Your task to perform on an android device: open app "Lyft - Rideshare, Bikes, Scooters & Transit" (install if not already installed) and enter user name: "deliberating@gmail.com" and password: "preyed" Image 0: 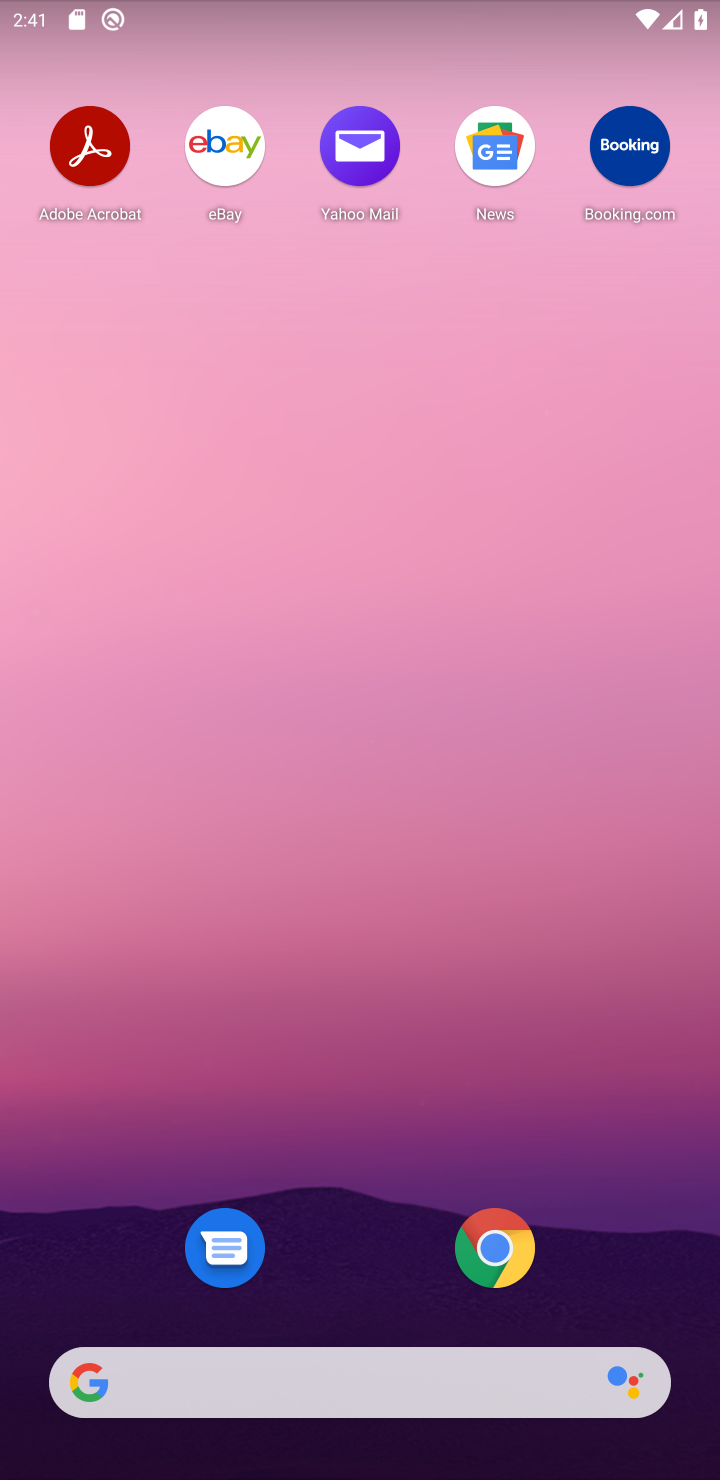
Step 0: drag from (354, 825) to (308, 41)
Your task to perform on an android device: open app "Lyft - Rideshare, Bikes, Scooters & Transit" (install if not already installed) and enter user name: "deliberating@gmail.com" and password: "preyed" Image 1: 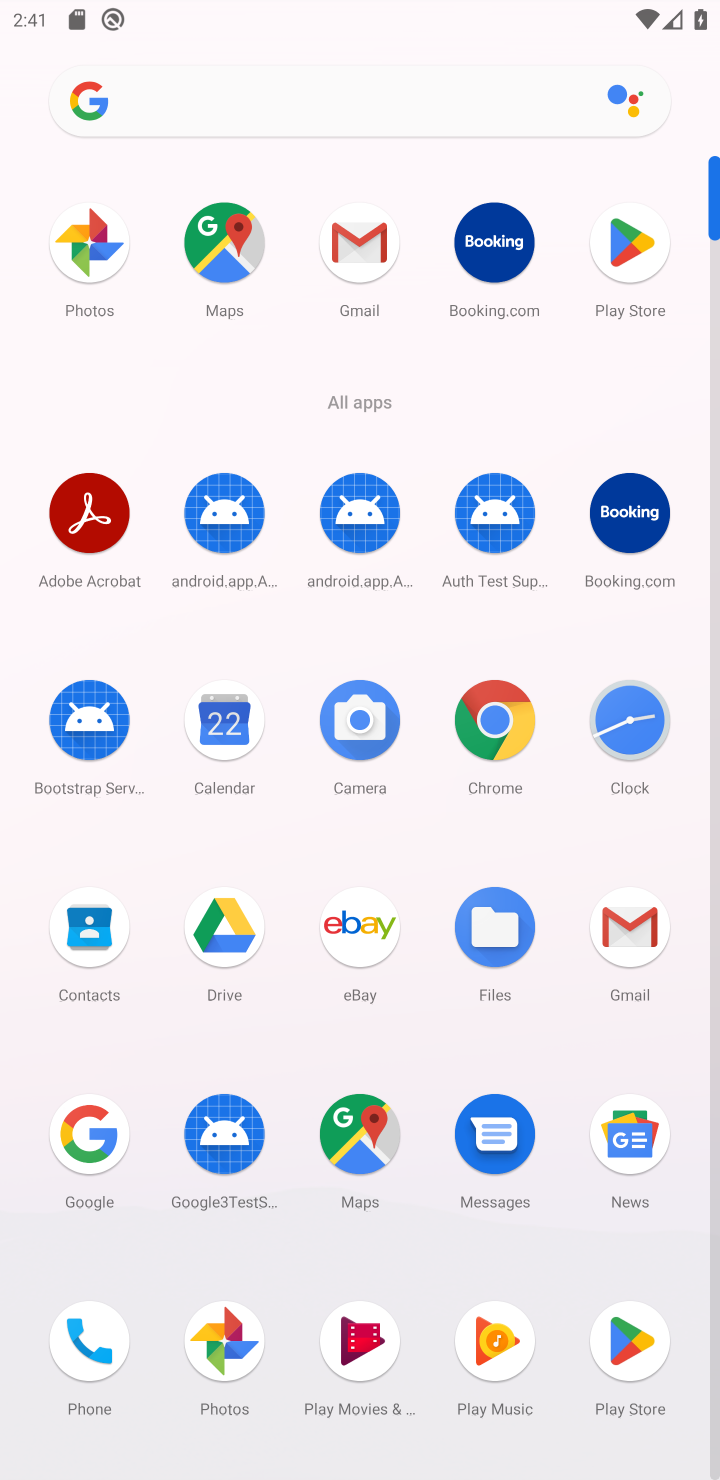
Step 1: click (648, 256)
Your task to perform on an android device: open app "Lyft - Rideshare, Bikes, Scooters & Transit" (install if not already installed) and enter user name: "deliberating@gmail.com" and password: "preyed" Image 2: 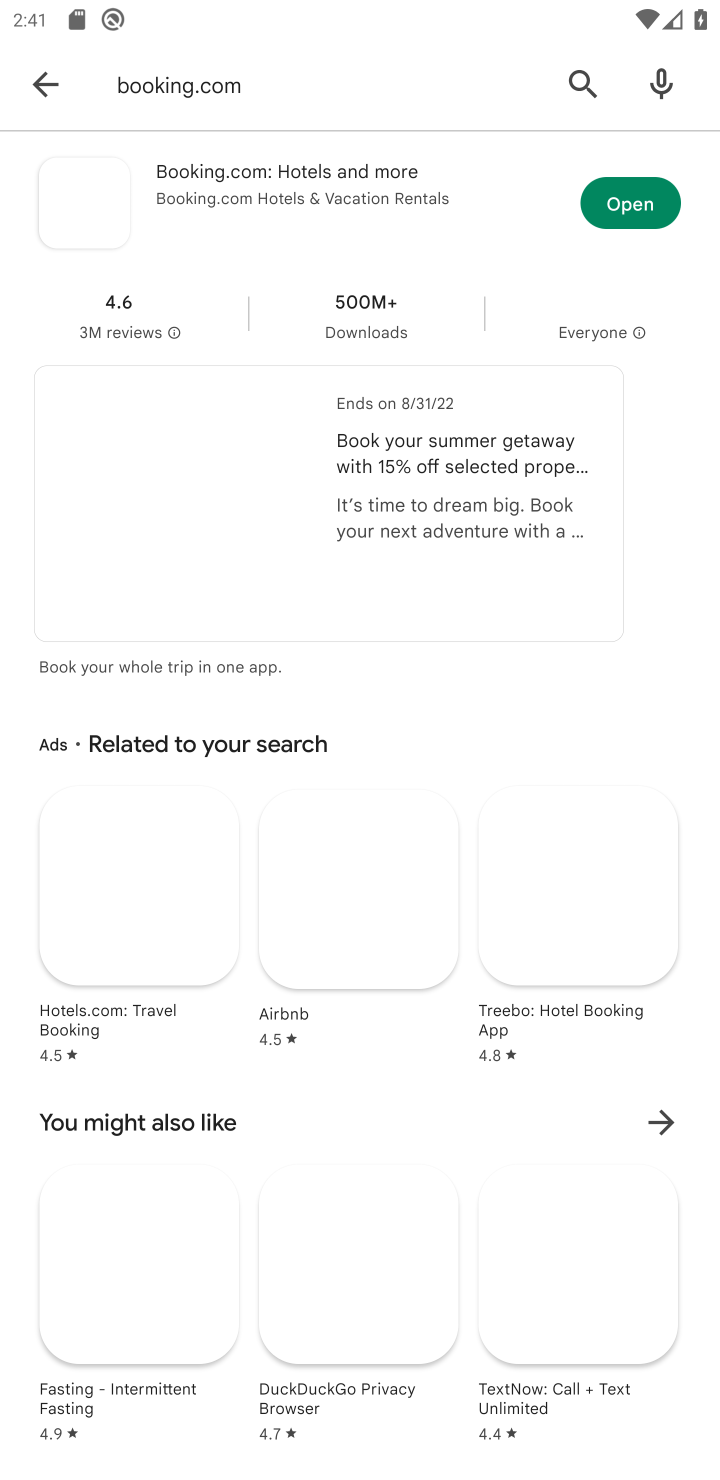
Step 2: click (266, 72)
Your task to perform on an android device: open app "Lyft - Rideshare, Bikes, Scooters & Transit" (install if not already installed) and enter user name: "deliberating@gmail.com" and password: "preyed" Image 3: 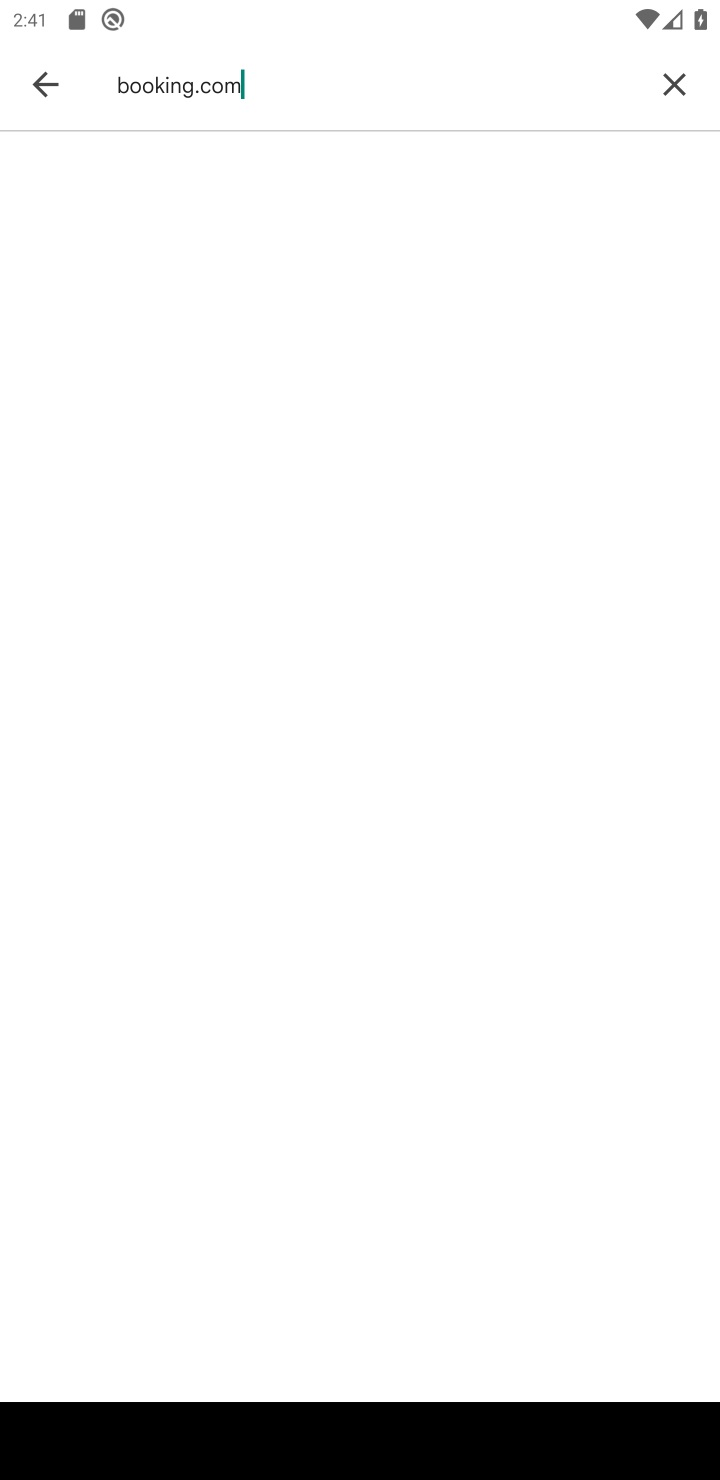
Step 3: click (679, 91)
Your task to perform on an android device: open app "Lyft - Rideshare, Bikes, Scooters & Transit" (install if not already installed) and enter user name: "deliberating@gmail.com" and password: "preyed" Image 4: 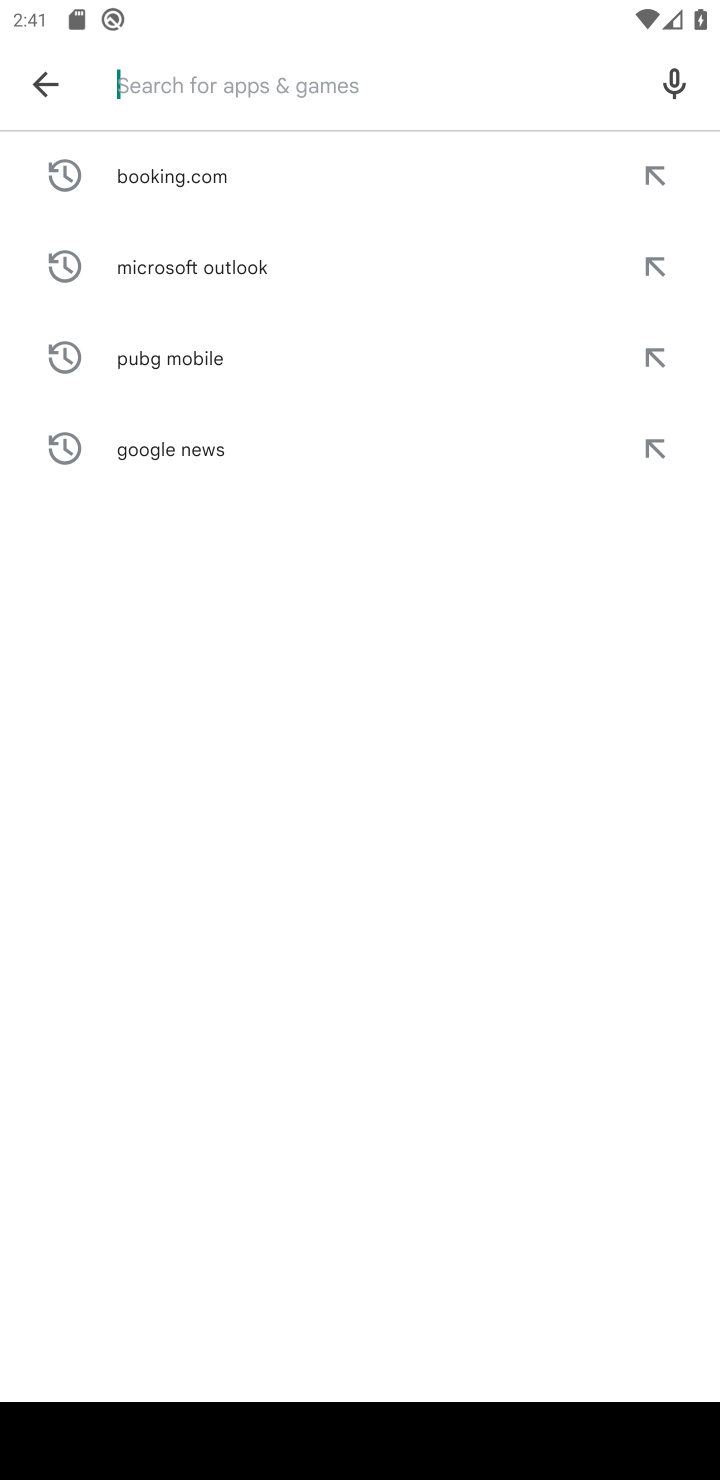
Step 4: type "lyft"
Your task to perform on an android device: open app "Lyft - Rideshare, Bikes, Scooters & Transit" (install if not already installed) and enter user name: "deliberating@gmail.com" and password: "preyed" Image 5: 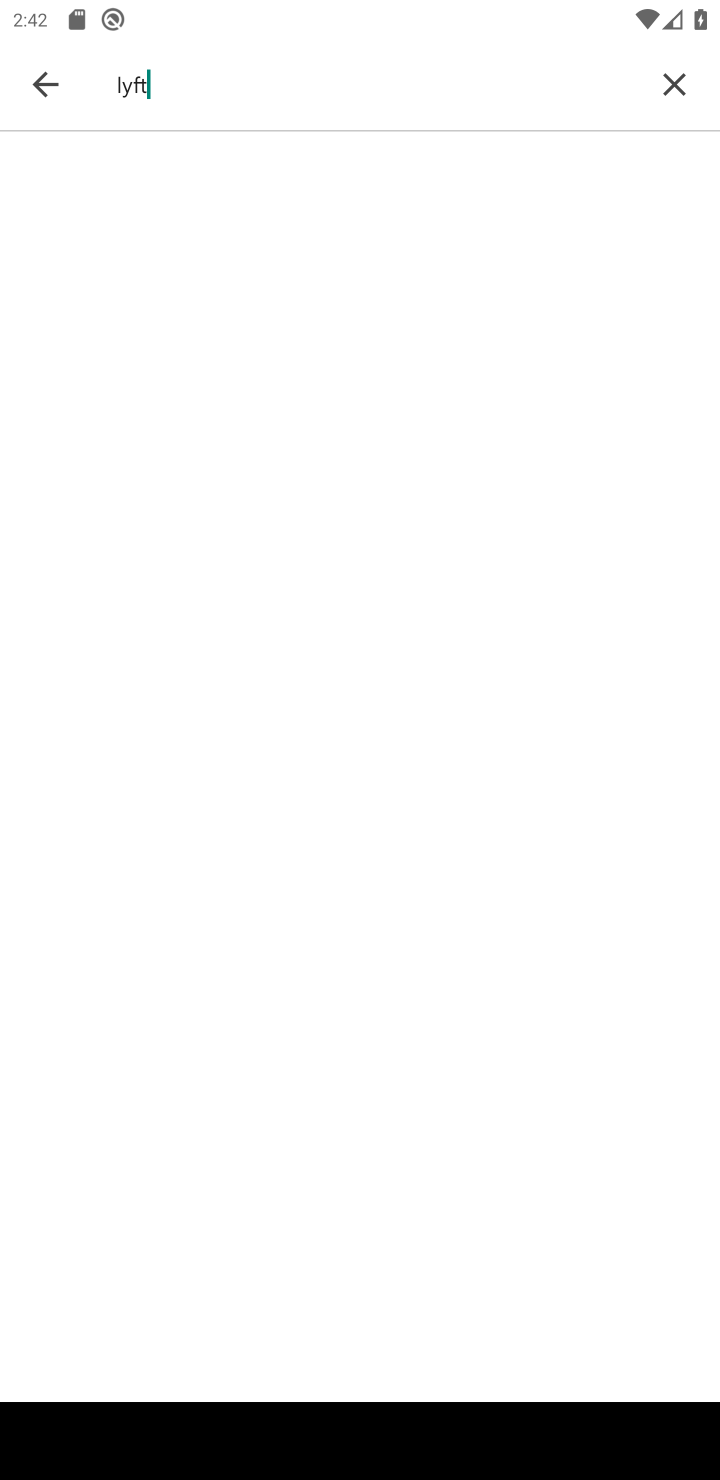
Step 5: click (398, 229)
Your task to perform on an android device: open app "Lyft - Rideshare, Bikes, Scooters & Transit" (install if not already installed) and enter user name: "deliberating@gmail.com" and password: "preyed" Image 6: 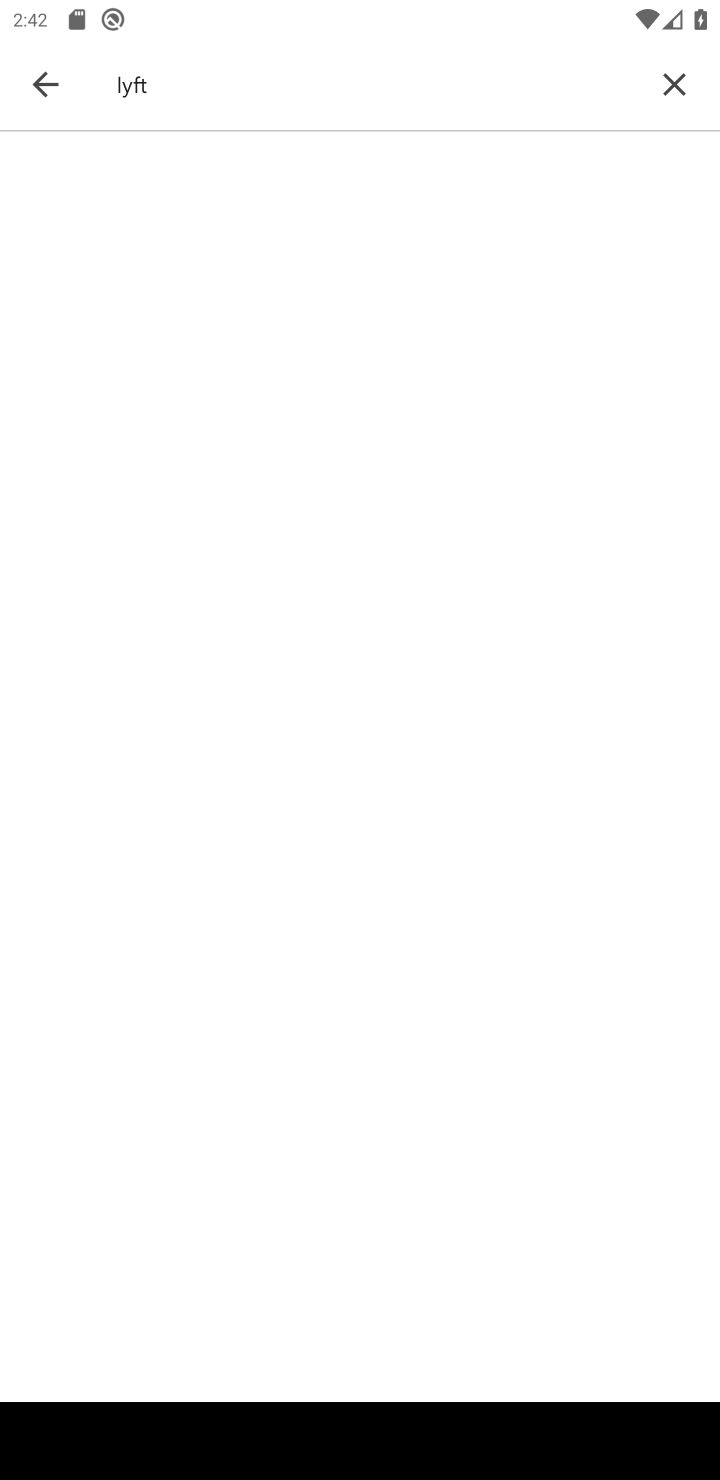
Step 6: click (248, 124)
Your task to perform on an android device: open app "Lyft - Rideshare, Bikes, Scooters & Transit" (install if not already installed) and enter user name: "deliberating@gmail.com" and password: "preyed" Image 7: 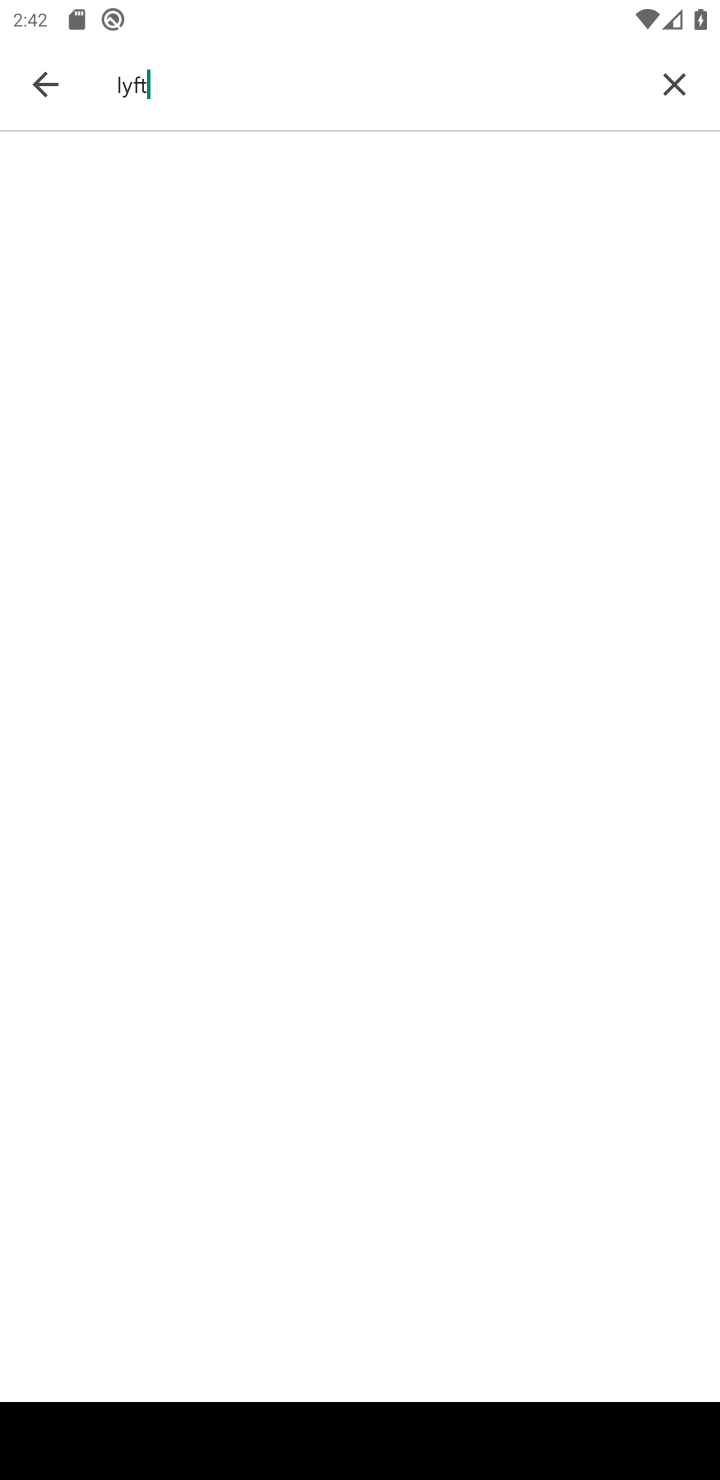
Step 7: click (685, 63)
Your task to perform on an android device: open app "Lyft - Rideshare, Bikes, Scooters & Transit" (install if not already installed) and enter user name: "deliberating@gmail.com" and password: "preyed" Image 8: 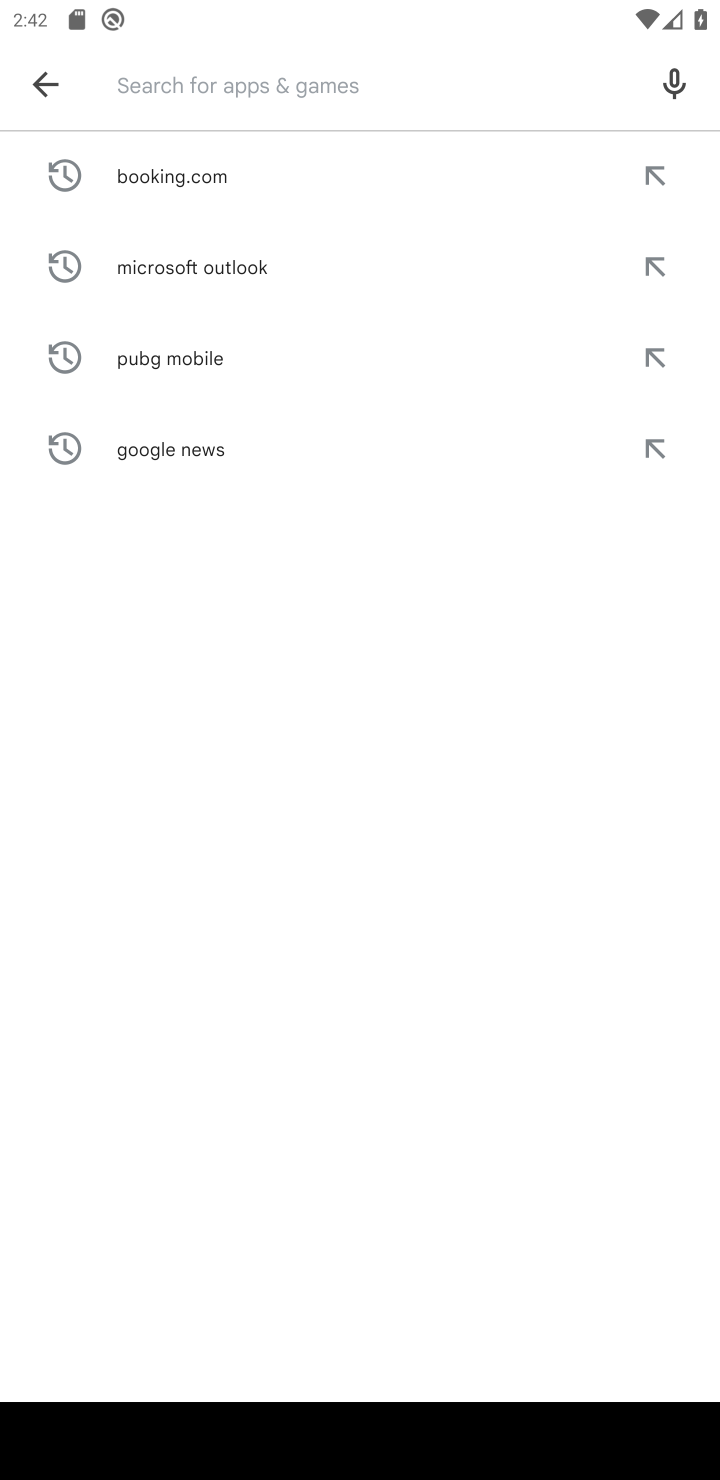
Step 8: click (54, 77)
Your task to perform on an android device: open app "Lyft - Rideshare, Bikes, Scooters & Transit" (install if not already installed) and enter user name: "deliberating@gmail.com" and password: "preyed" Image 9: 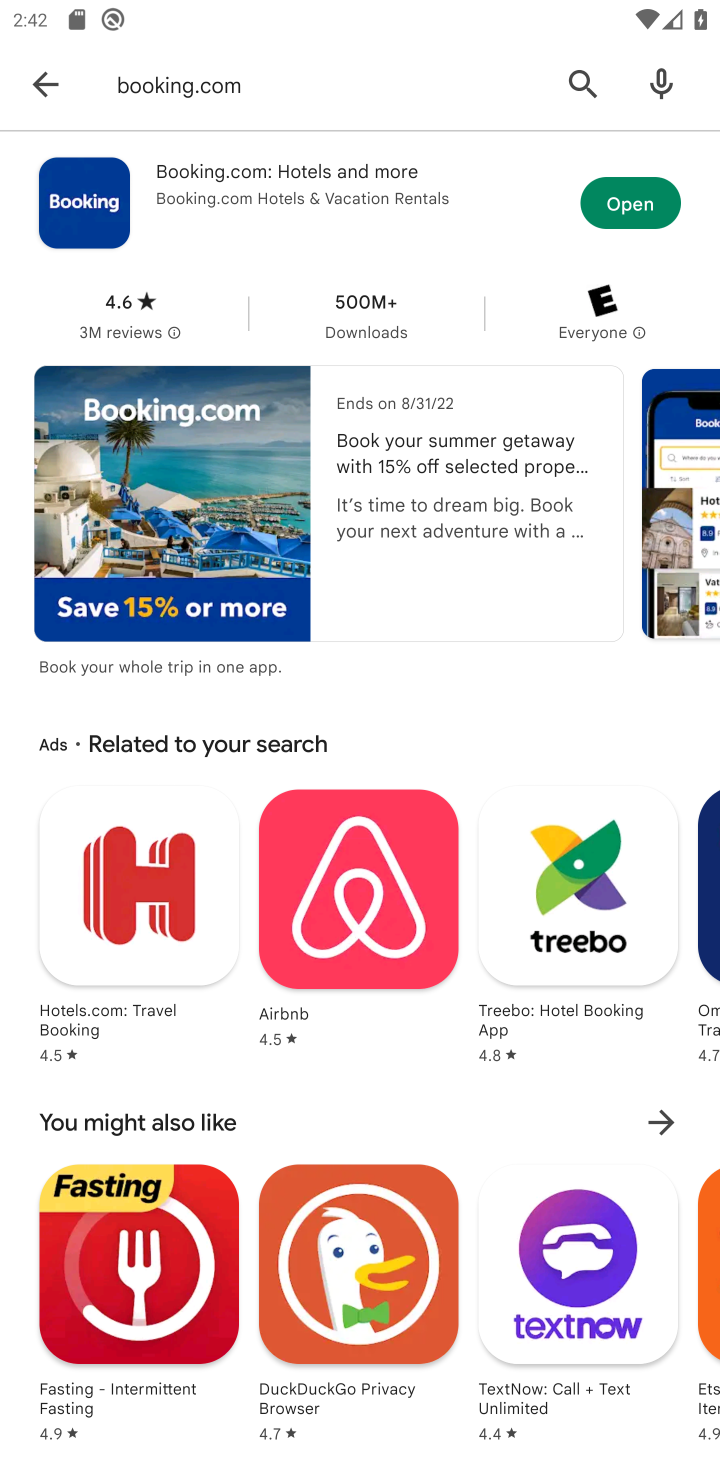
Step 9: click (20, 68)
Your task to perform on an android device: open app "Lyft - Rideshare, Bikes, Scooters & Transit" (install if not already installed) and enter user name: "deliberating@gmail.com" and password: "preyed" Image 10: 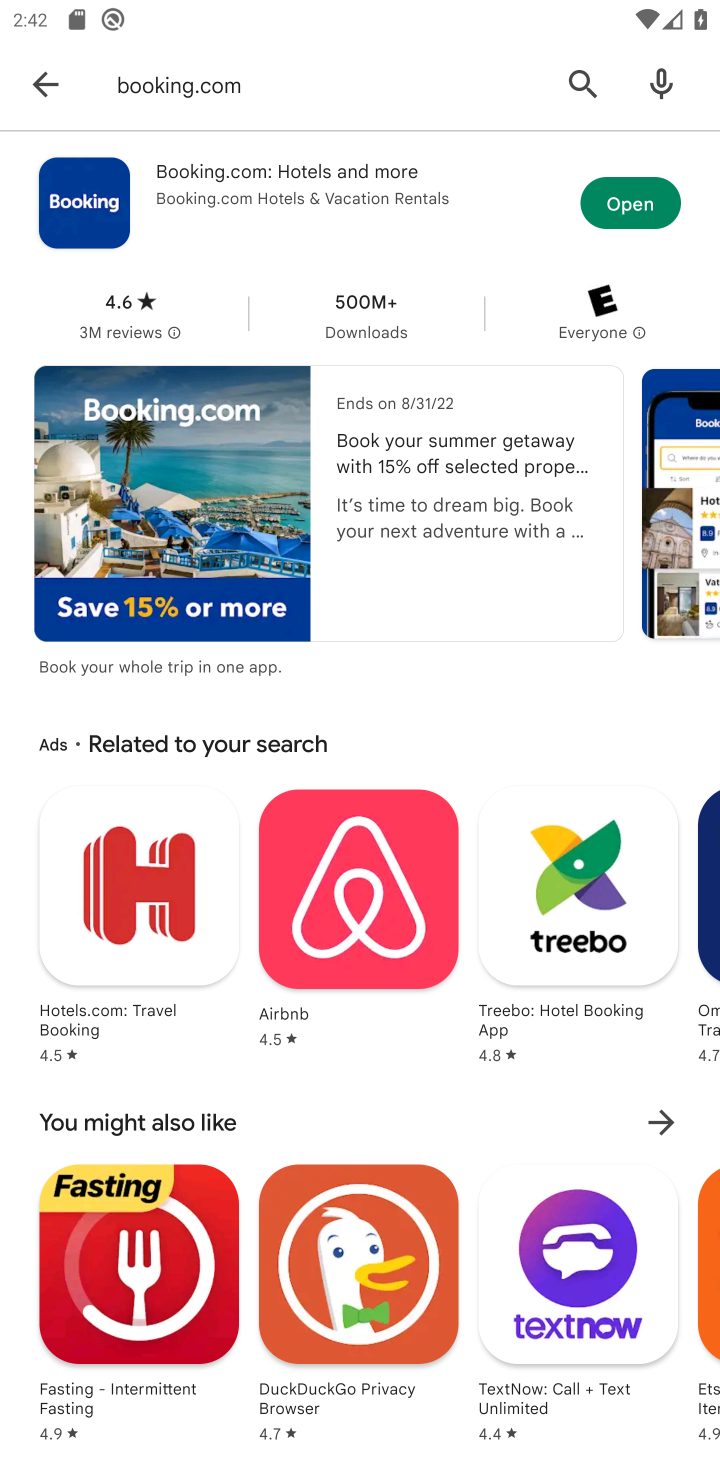
Step 10: click (48, 82)
Your task to perform on an android device: open app "Lyft - Rideshare, Bikes, Scooters & Transit" (install if not already installed) and enter user name: "deliberating@gmail.com" and password: "preyed" Image 11: 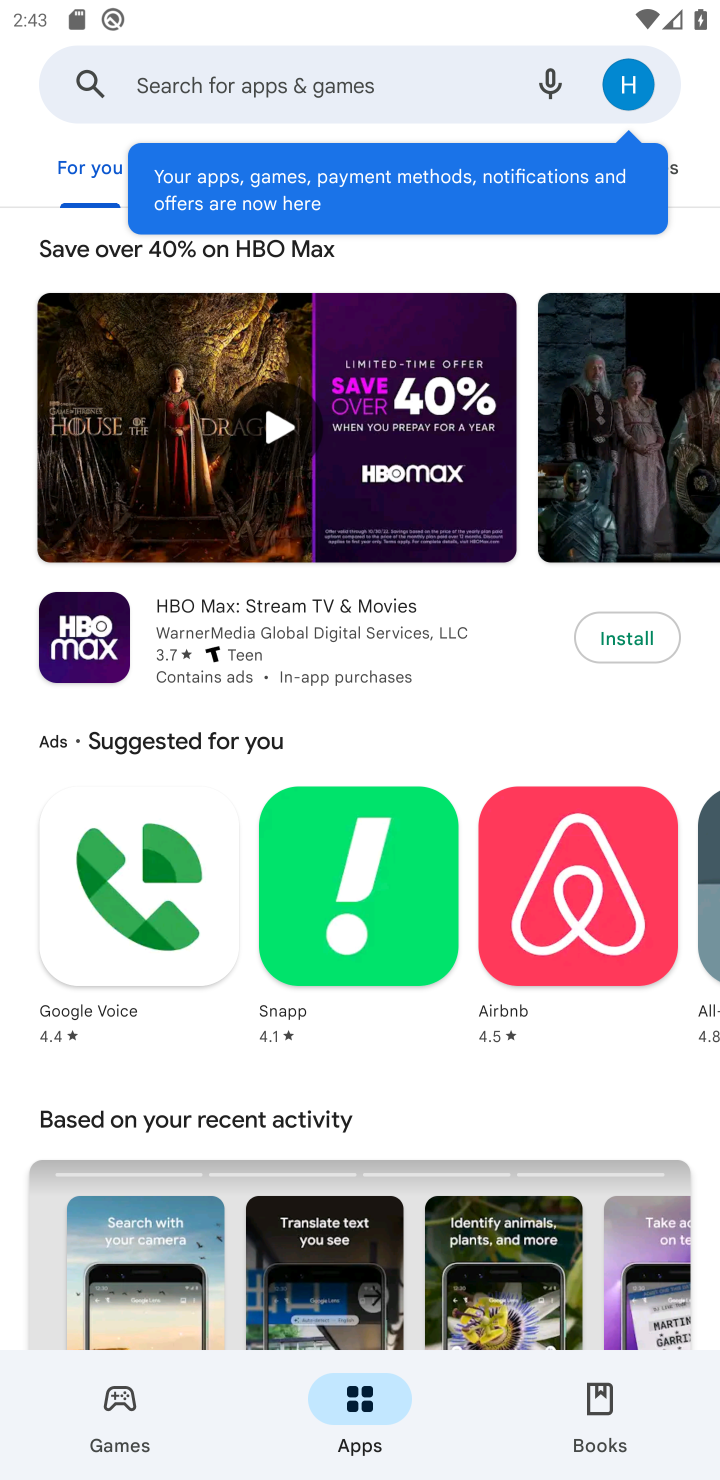
Step 11: click (268, 72)
Your task to perform on an android device: open app "Lyft - Rideshare, Bikes, Scooters & Transit" (install if not already installed) and enter user name: "deliberating@gmail.com" and password: "preyed" Image 12: 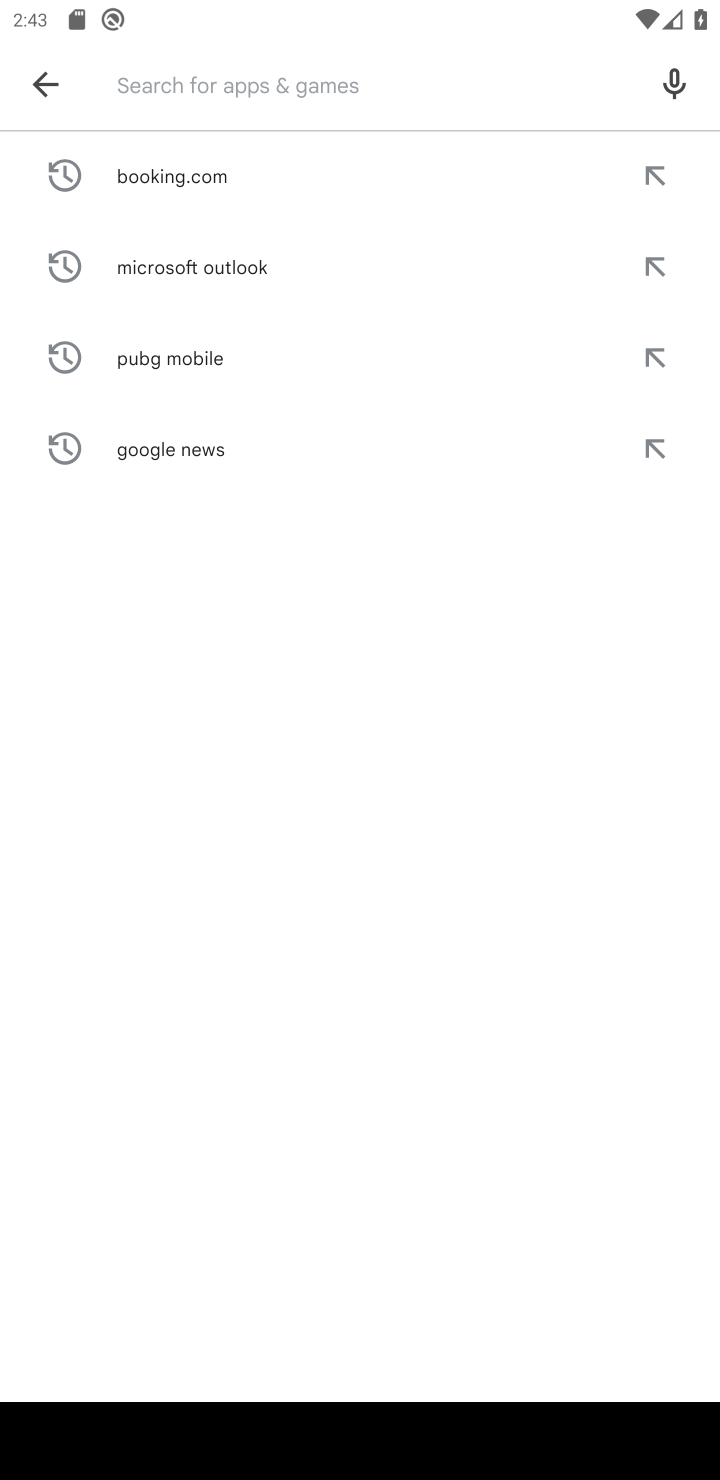
Step 12: type "lyft"
Your task to perform on an android device: open app "Lyft - Rideshare, Bikes, Scooters & Transit" (install if not already installed) and enter user name: "deliberating@gmail.com" and password: "preyed" Image 13: 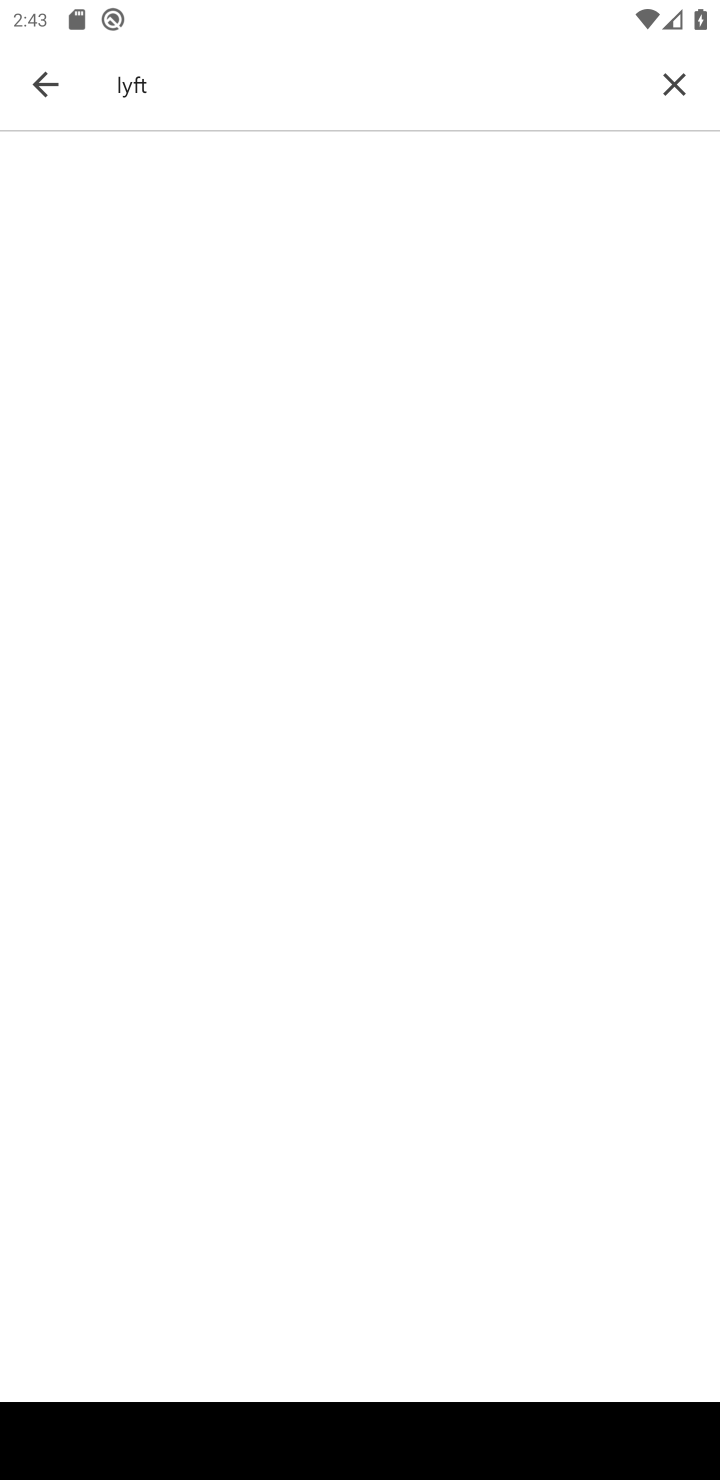
Step 13: click (439, 99)
Your task to perform on an android device: open app "Lyft - Rideshare, Bikes, Scooters & Transit" (install if not already installed) and enter user name: "deliberating@gmail.com" and password: "preyed" Image 14: 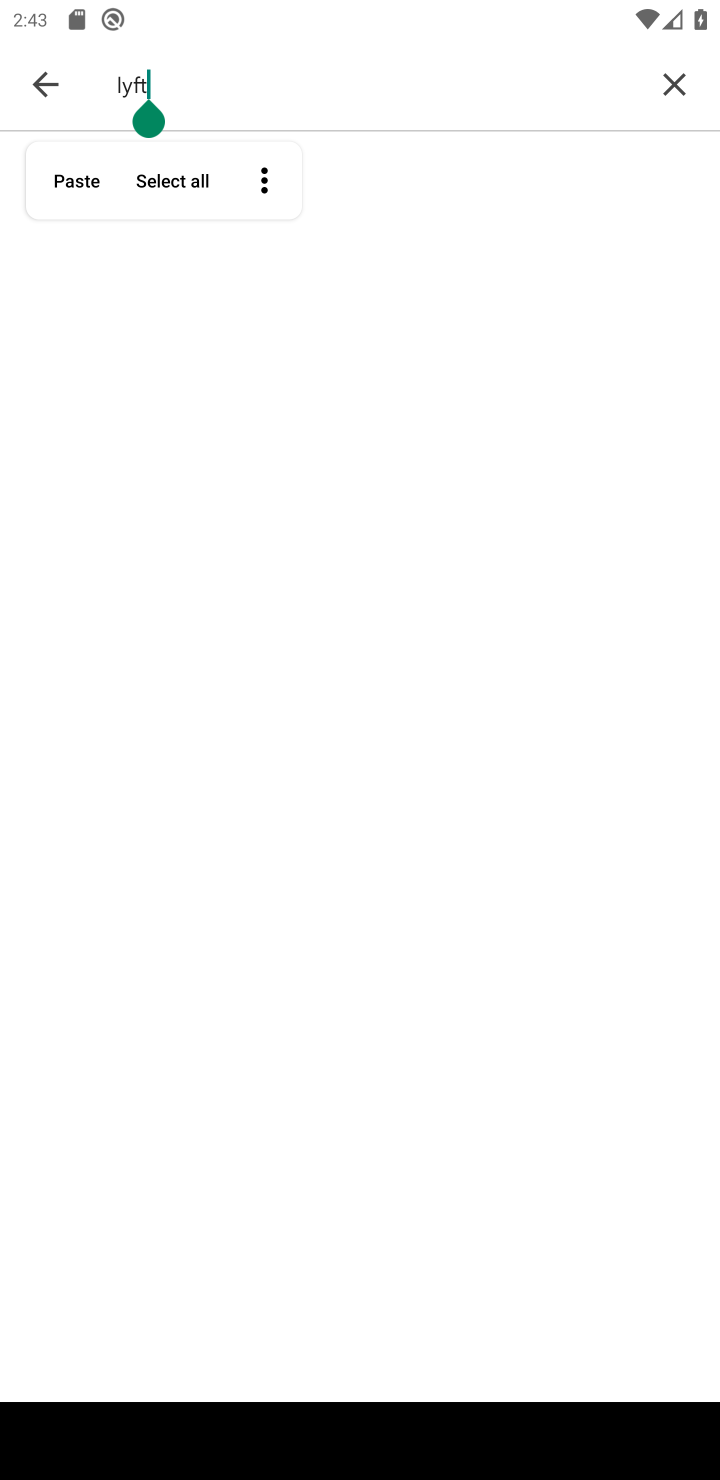
Step 14: click (281, 214)
Your task to perform on an android device: open app "Lyft - Rideshare, Bikes, Scooters & Transit" (install if not already installed) and enter user name: "deliberating@gmail.com" and password: "preyed" Image 15: 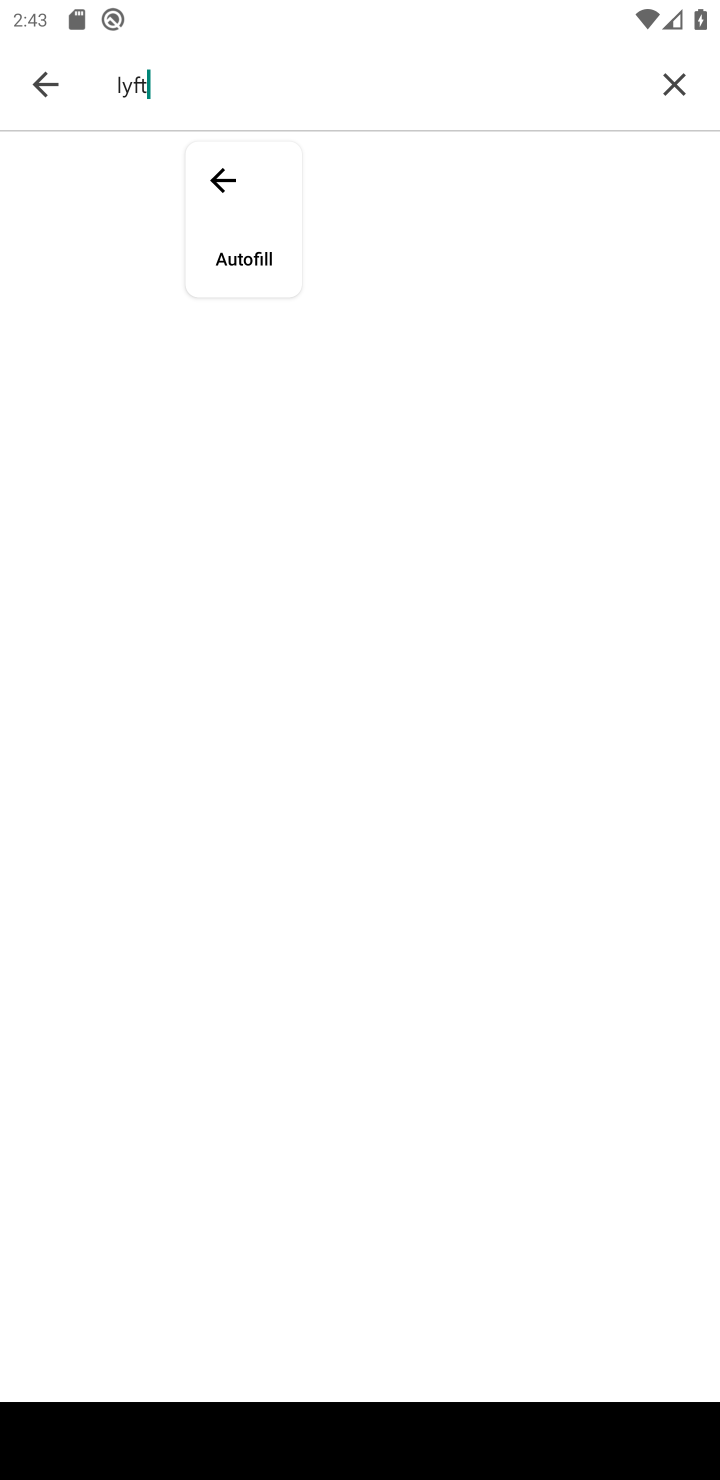
Step 15: task complete